Your task to perform on an android device: Go to network settings Image 0: 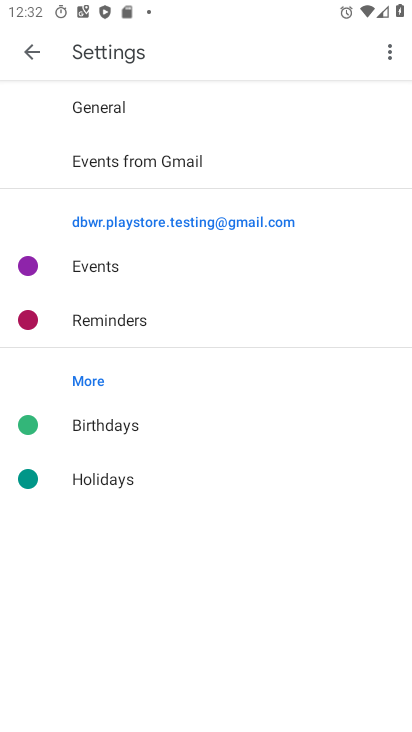
Step 0: press home button
Your task to perform on an android device: Go to network settings Image 1: 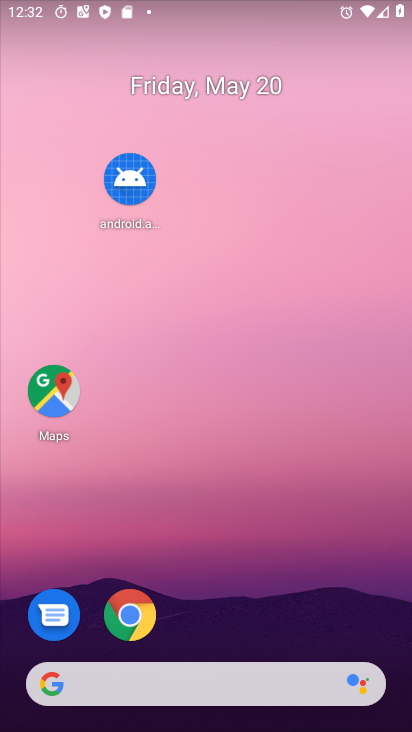
Step 1: drag from (321, 534) to (266, 45)
Your task to perform on an android device: Go to network settings Image 2: 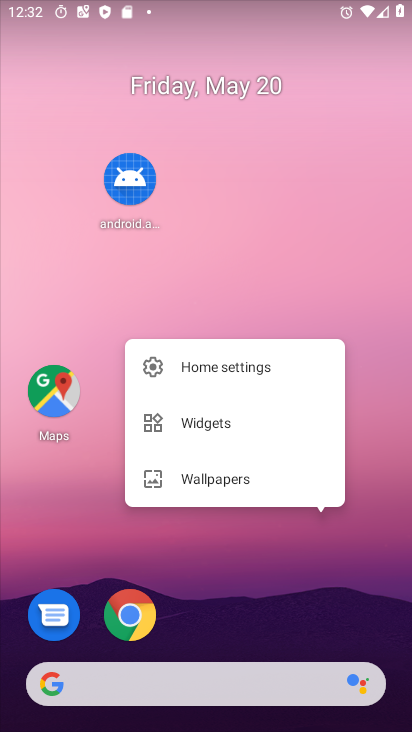
Step 2: drag from (306, 631) to (289, 69)
Your task to perform on an android device: Go to network settings Image 3: 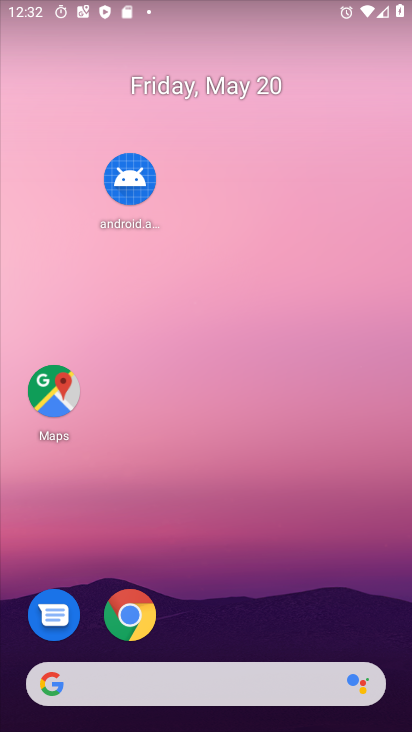
Step 3: drag from (370, 627) to (335, 1)
Your task to perform on an android device: Go to network settings Image 4: 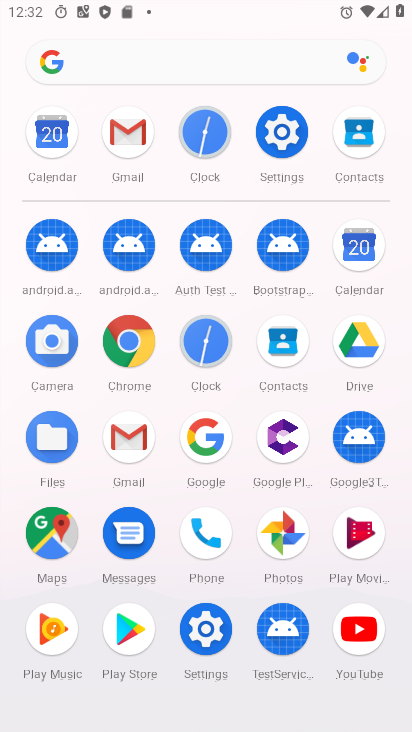
Step 4: click (277, 134)
Your task to perform on an android device: Go to network settings Image 5: 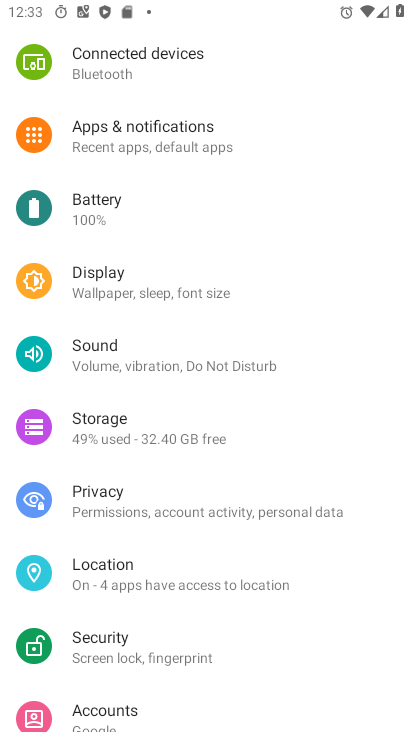
Step 5: drag from (185, 133) to (215, 309)
Your task to perform on an android device: Go to network settings Image 6: 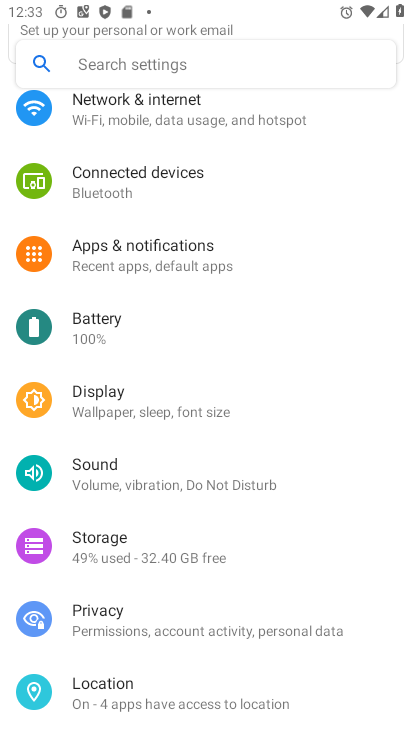
Step 6: click (179, 110)
Your task to perform on an android device: Go to network settings Image 7: 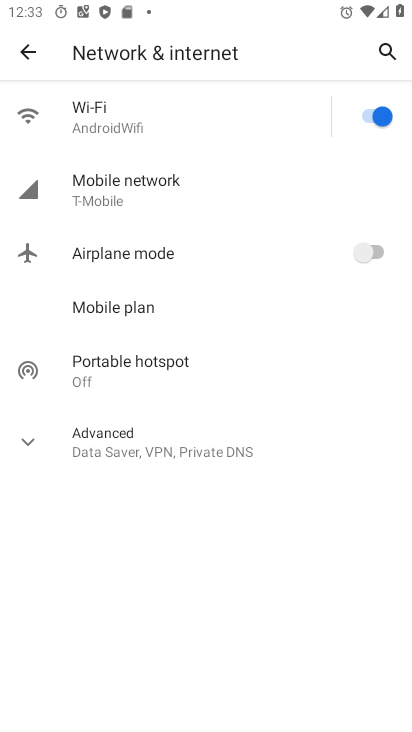
Step 7: task complete